Your task to perform on an android device: Open wifi settings Image 0: 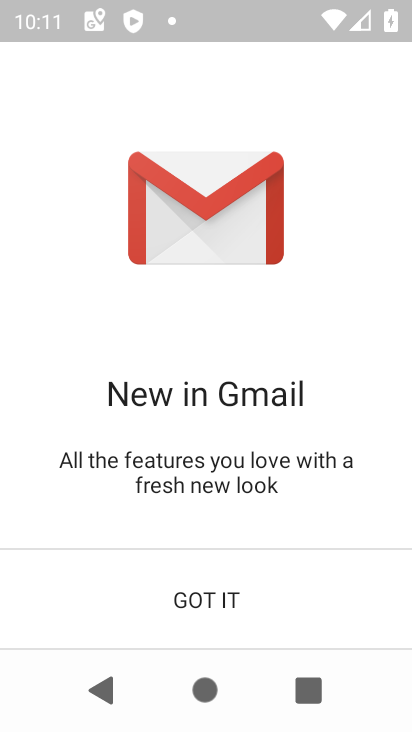
Step 0: press home button
Your task to perform on an android device: Open wifi settings Image 1: 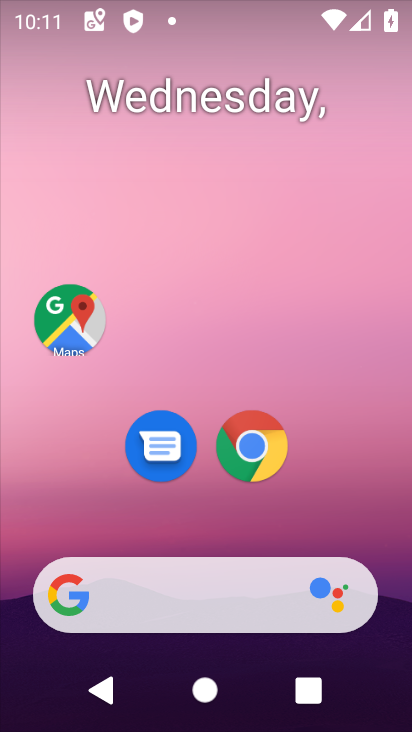
Step 1: drag from (210, 524) to (214, 79)
Your task to perform on an android device: Open wifi settings Image 2: 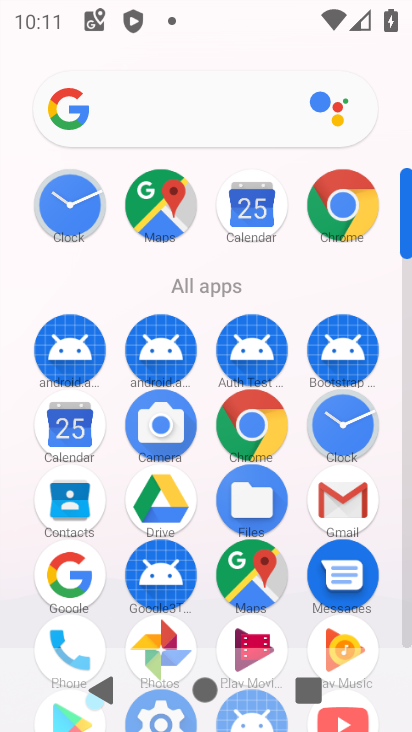
Step 2: drag from (197, 636) to (231, 264)
Your task to perform on an android device: Open wifi settings Image 3: 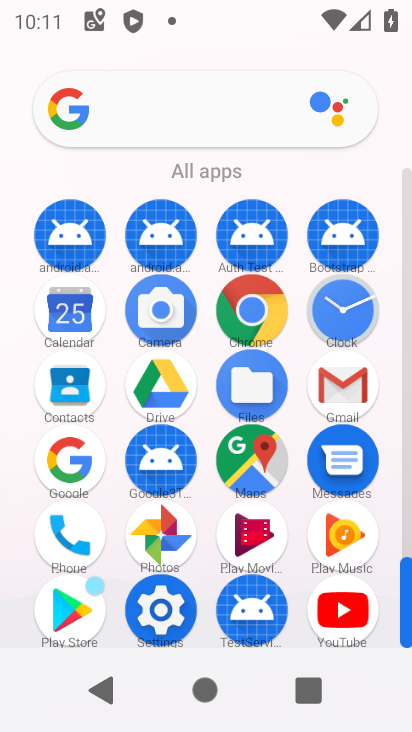
Step 3: click (145, 601)
Your task to perform on an android device: Open wifi settings Image 4: 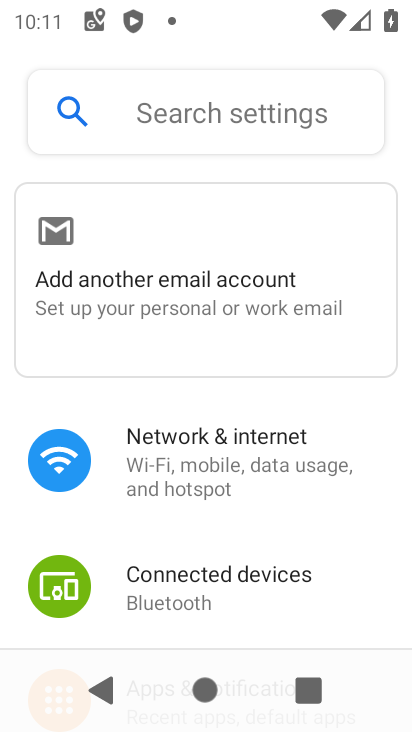
Step 4: click (188, 478)
Your task to perform on an android device: Open wifi settings Image 5: 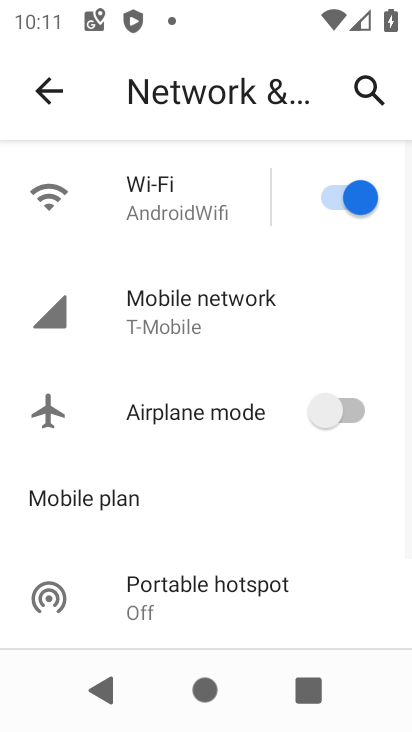
Step 5: click (177, 201)
Your task to perform on an android device: Open wifi settings Image 6: 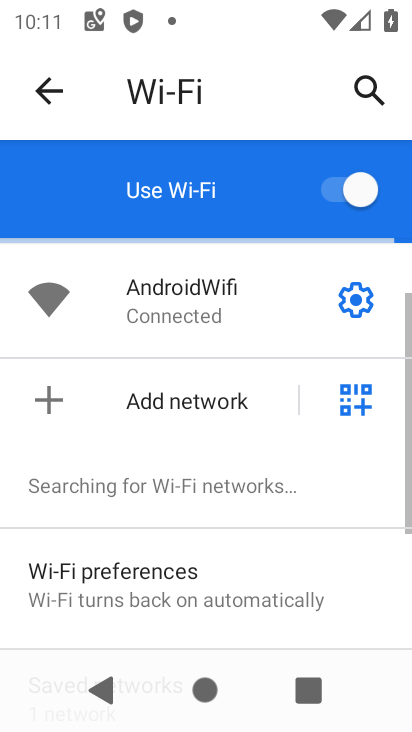
Step 6: task complete